Your task to perform on an android device: search for starred emails in the gmail app Image 0: 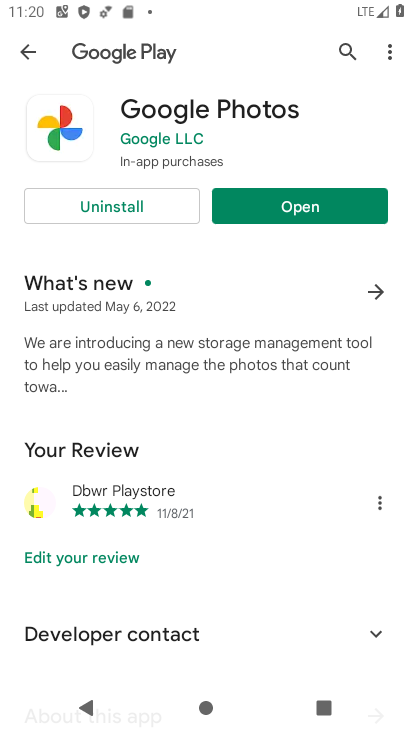
Step 0: press home button
Your task to perform on an android device: search for starred emails in the gmail app Image 1: 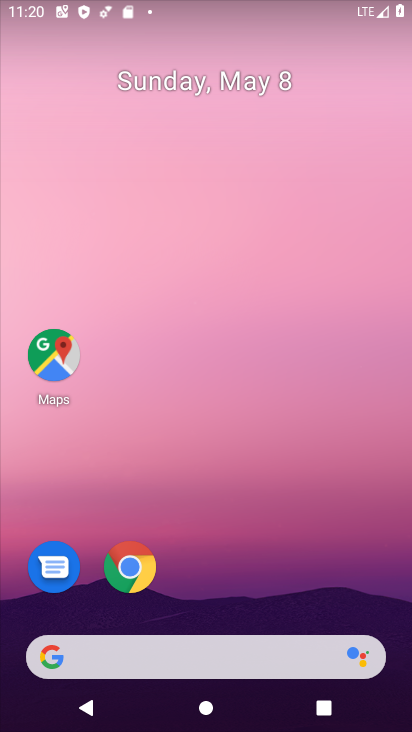
Step 1: drag from (209, 616) to (211, 9)
Your task to perform on an android device: search for starred emails in the gmail app Image 2: 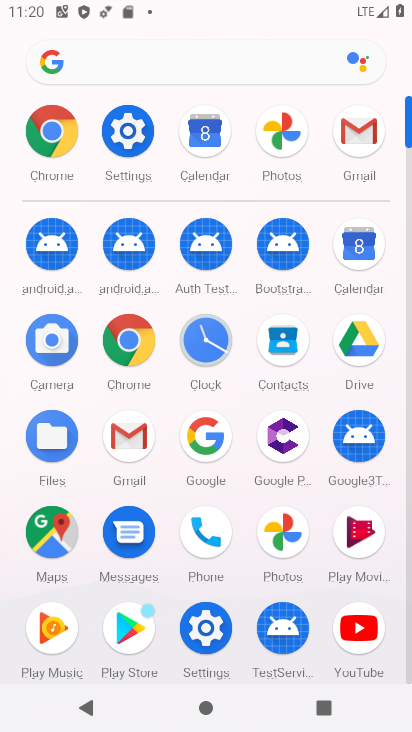
Step 2: click (124, 426)
Your task to perform on an android device: search for starred emails in the gmail app Image 3: 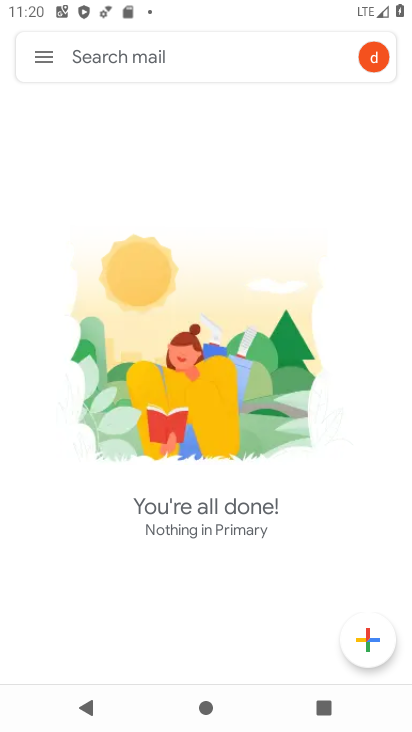
Step 3: click (31, 54)
Your task to perform on an android device: search for starred emails in the gmail app Image 4: 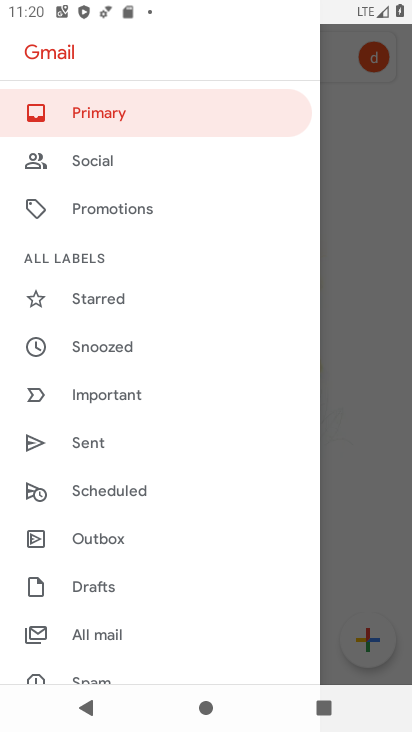
Step 4: click (115, 634)
Your task to perform on an android device: search for starred emails in the gmail app Image 5: 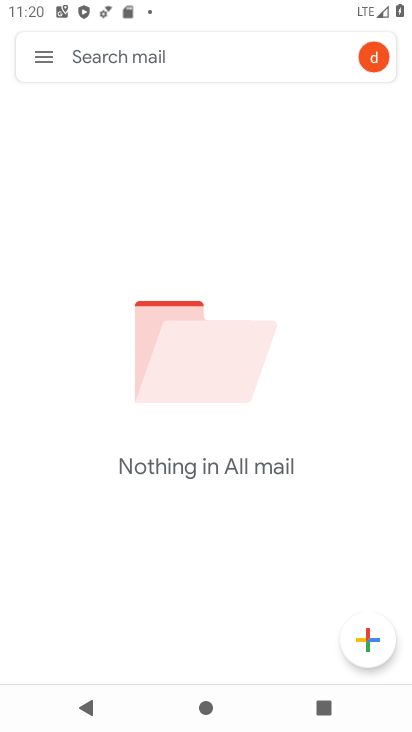
Step 5: click (38, 58)
Your task to perform on an android device: search for starred emails in the gmail app Image 6: 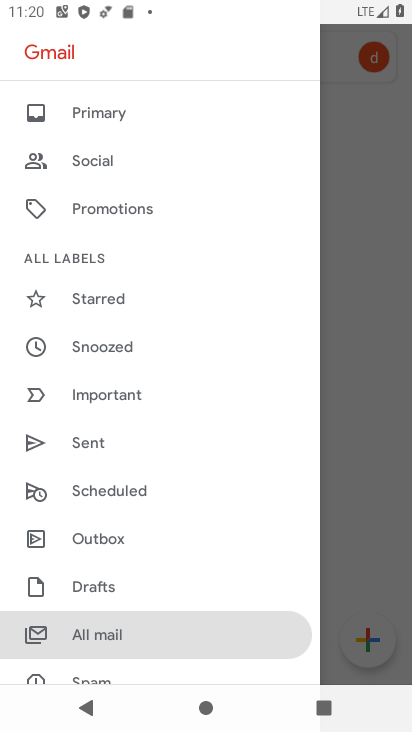
Step 6: click (135, 297)
Your task to perform on an android device: search for starred emails in the gmail app Image 7: 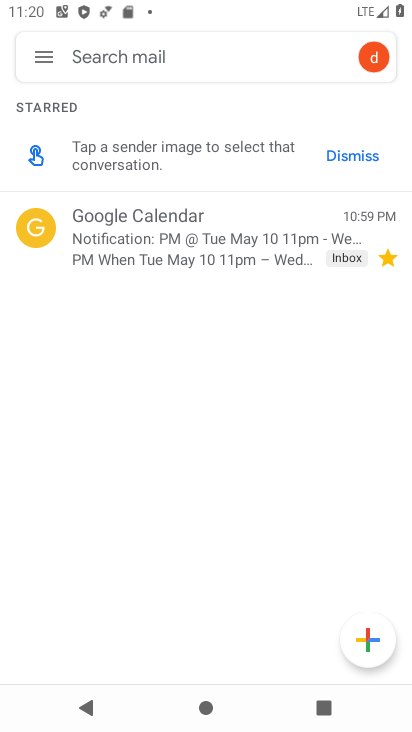
Step 7: task complete